Your task to perform on an android device: show emergency info Image 0: 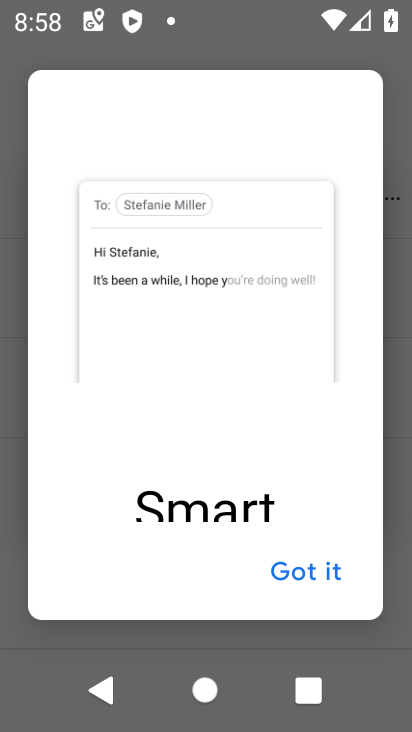
Step 0: press home button
Your task to perform on an android device: show emergency info Image 1: 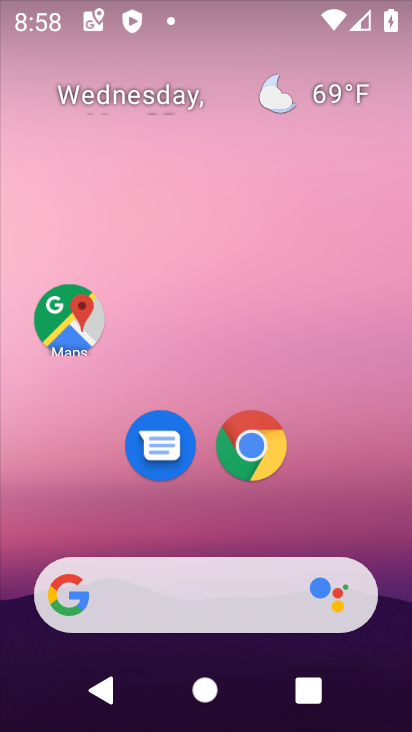
Step 1: drag from (312, 503) to (321, 33)
Your task to perform on an android device: show emergency info Image 2: 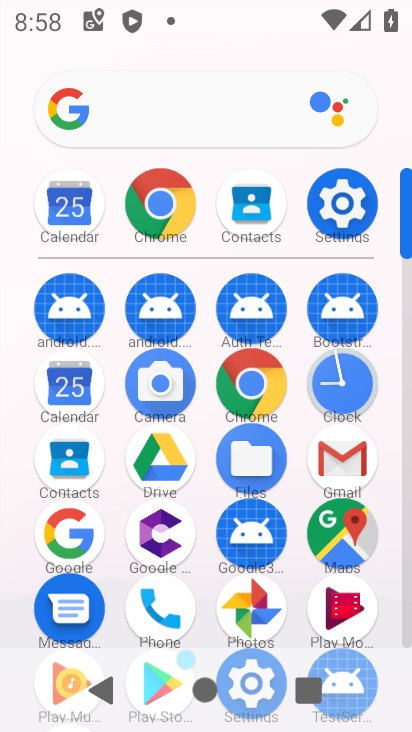
Step 2: click (337, 198)
Your task to perform on an android device: show emergency info Image 3: 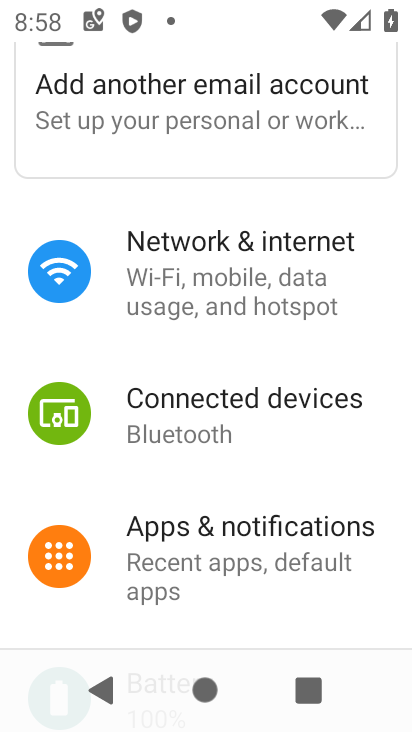
Step 3: drag from (350, 572) to (366, 105)
Your task to perform on an android device: show emergency info Image 4: 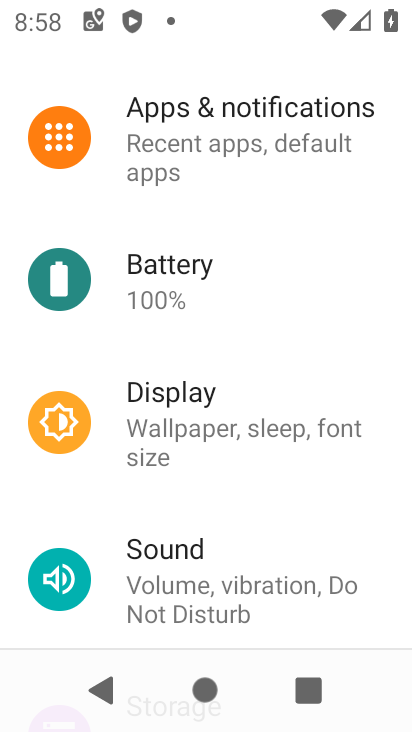
Step 4: drag from (367, 621) to (369, 102)
Your task to perform on an android device: show emergency info Image 5: 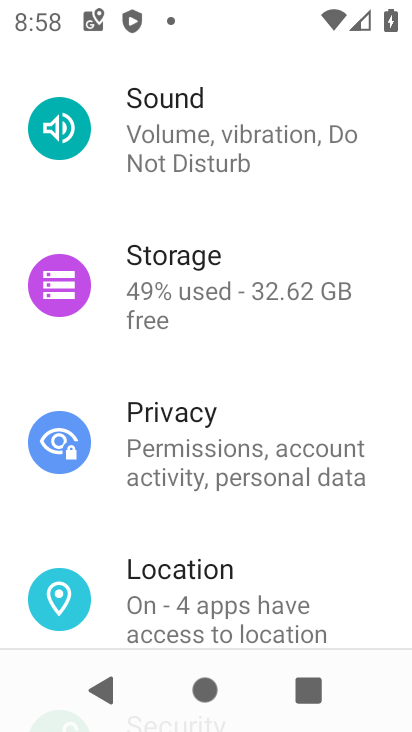
Step 5: drag from (364, 620) to (338, 72)
Your task to perform on an android device: show emergency info Image 6: 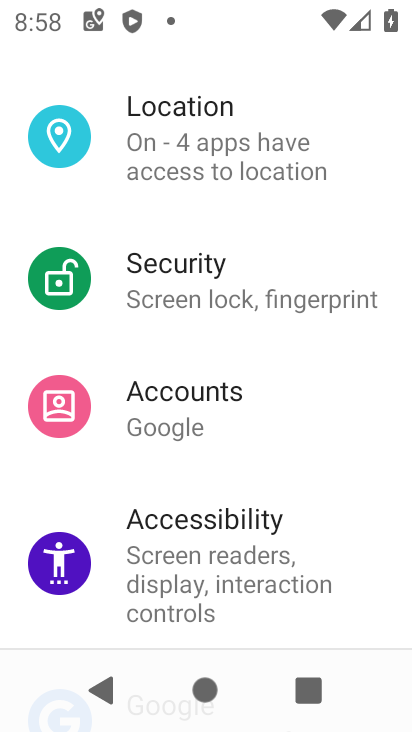
Step 6: drag from (358, 631) to (341, 71)
Your task to perform on an android device: show emergency info Image 7: 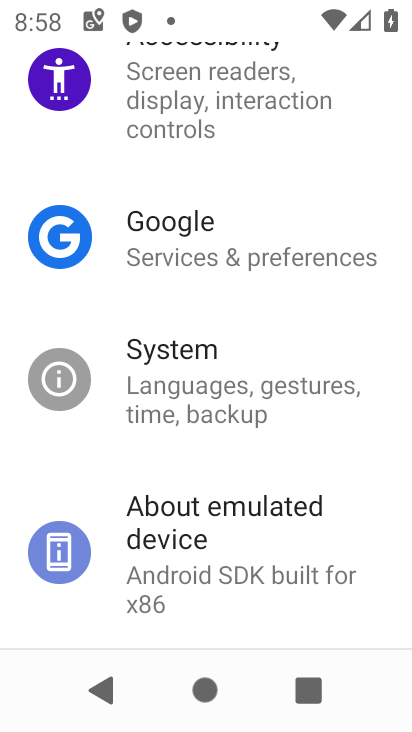
Step 7: click (165, 541)
Your task to perform on an android device: show emergency info Image 8: 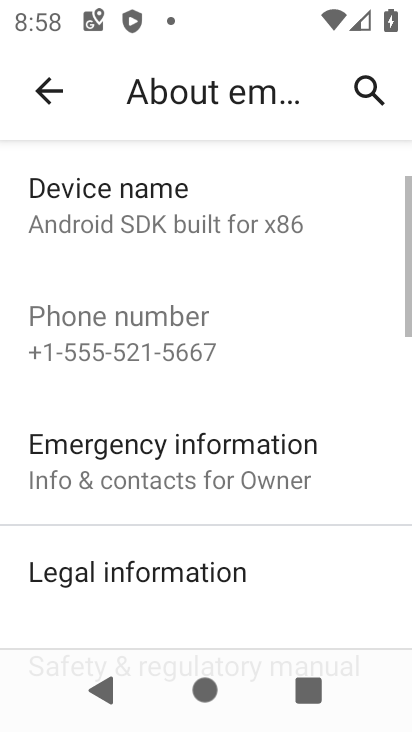
Step 8: click (243, 459)
Your task to perform on an android device: show emergency info Image 9: 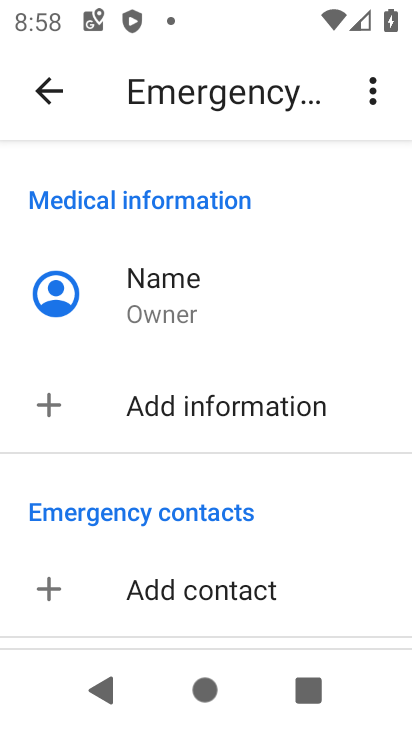
Step 9: task complete